Your task to perform on an android device: open app "Paramount+ | Peak Streaming" Image 0: 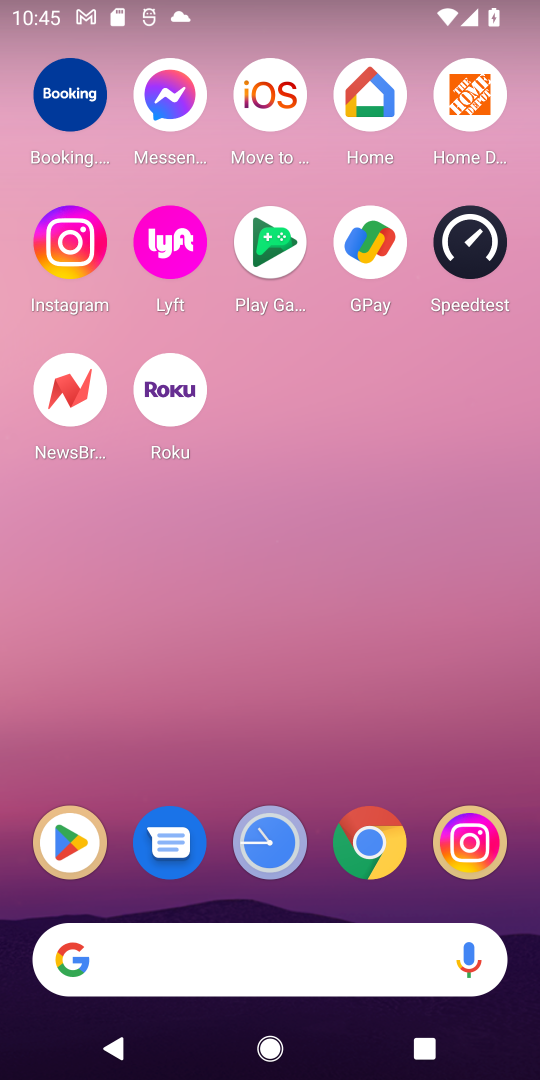
Step 0: click (77, 842)
Your task to perform on an android device: open app "Paramount+ | Peak Streaming" Image 1: 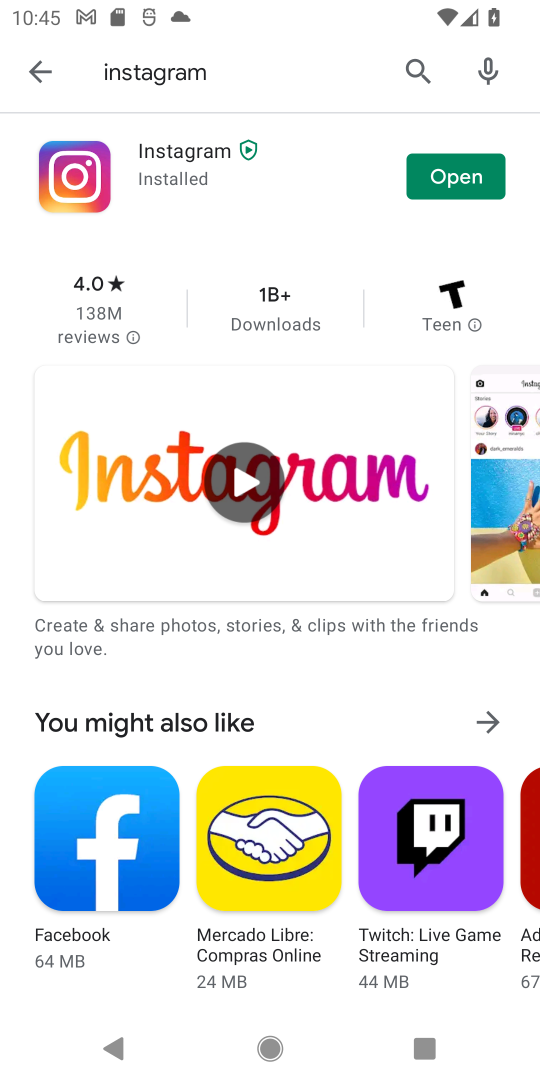
Step 1: click (408, 72)
Your task to perform on an android device: open app "Paramount+ | Peak Streaming" Image 2: 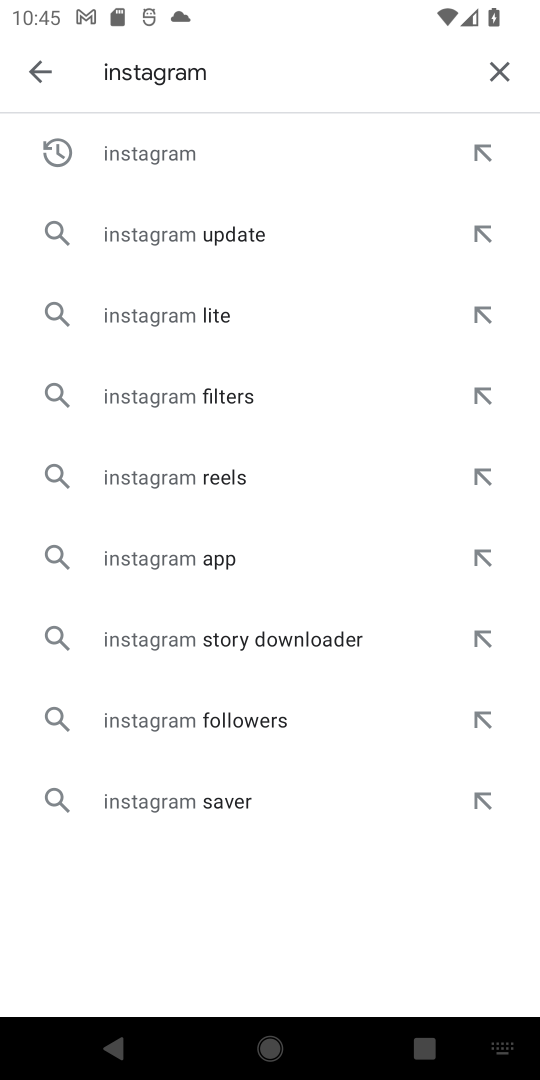
Step 2: click (511, 70)
Your task to perform on an android device: open app "Paramount+ | Peak Streaming" Image 3: 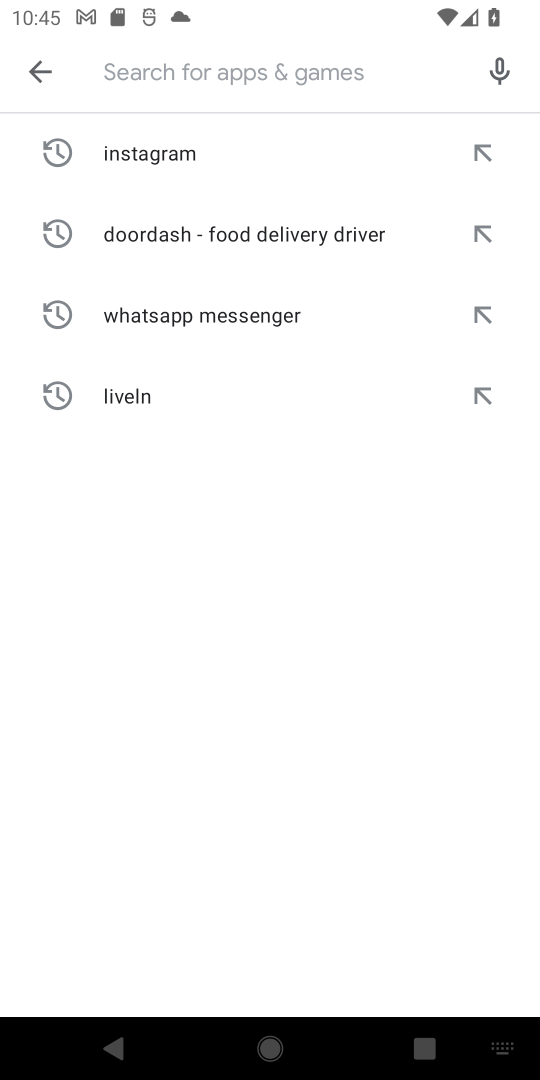
Step 3: type "Paramount+"
Your task to perform on an android device: open app "Paramount+ | Peak Streaming" Image 4: 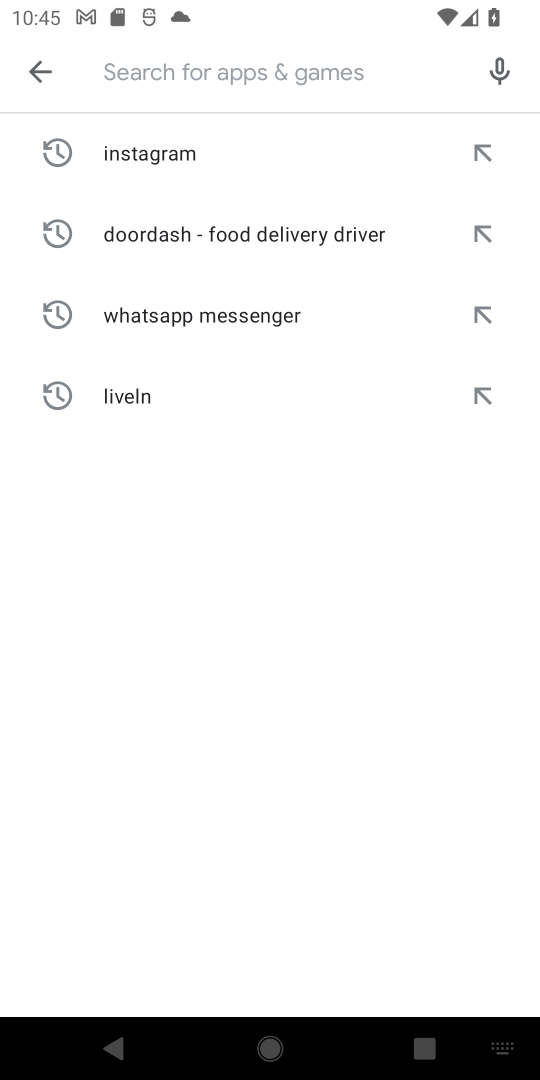
Step 4: click (154, 558)
Your task to perform on an android device: open app "Paramount+ | Peak Streaming" Image 5: 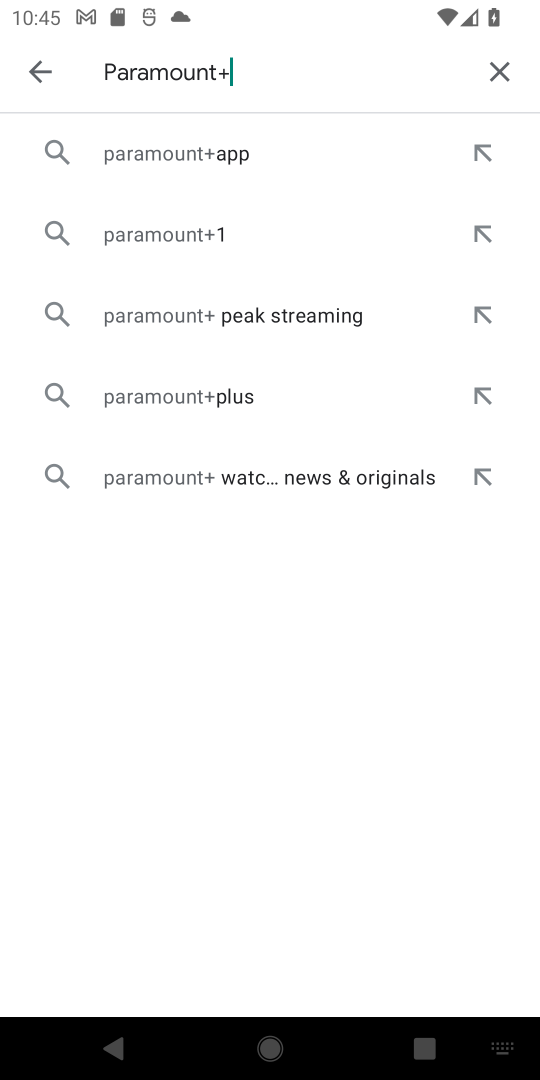
Step 5: click (152, 224)
Your task to perform on an android device: open app "Paramount+ | Peak Streaming" Image 6: 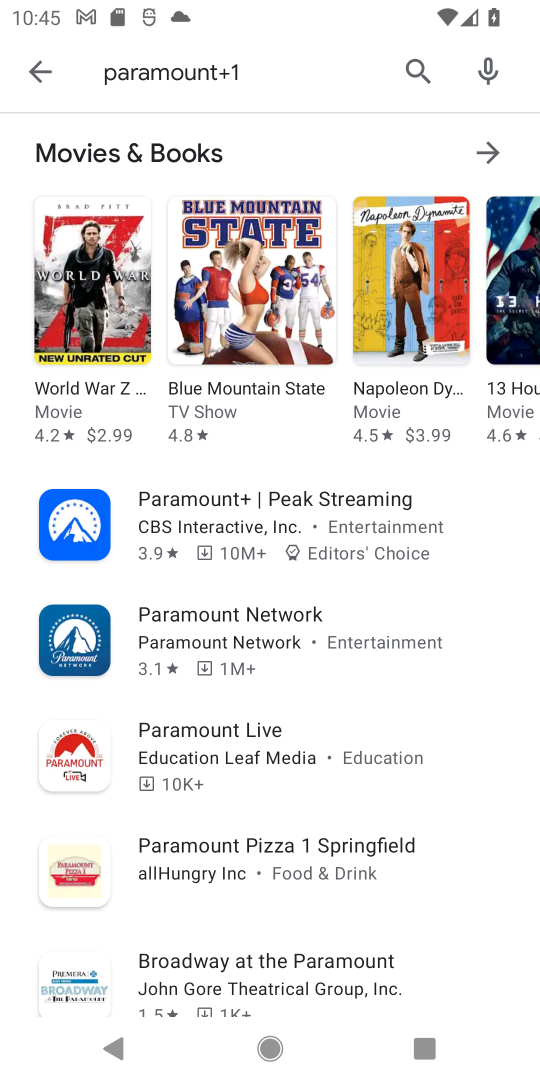
Step 6: click (250, 516)
Your task to perform on an android device: open app "Paramount+ | Peak Streaming" Image 7: 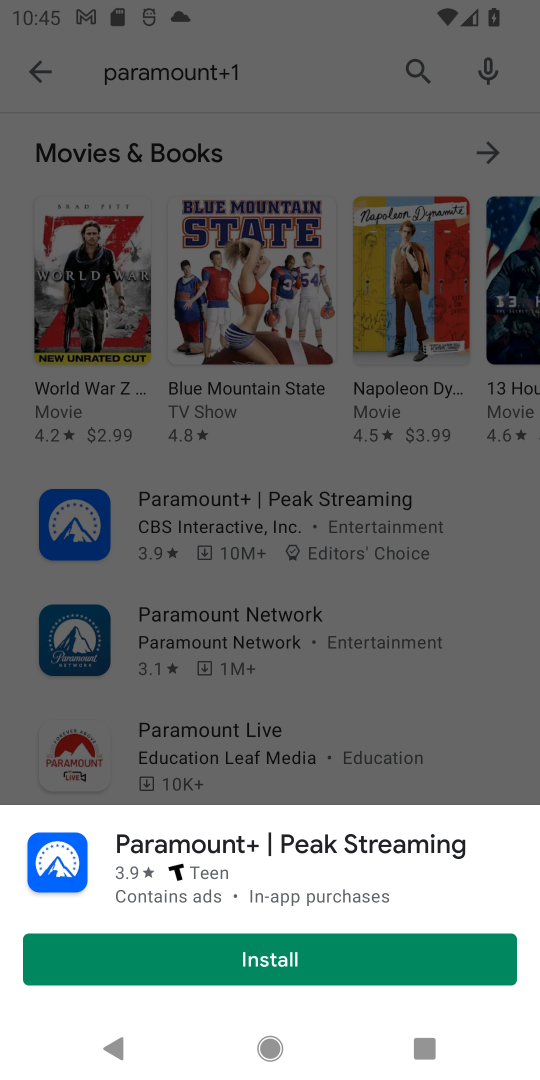
Step 7: task complete